Your task to perform on an android device: Clear the shopping cart on ebay.com. Add logitech g pro to the cart on ebay.com Image 0: 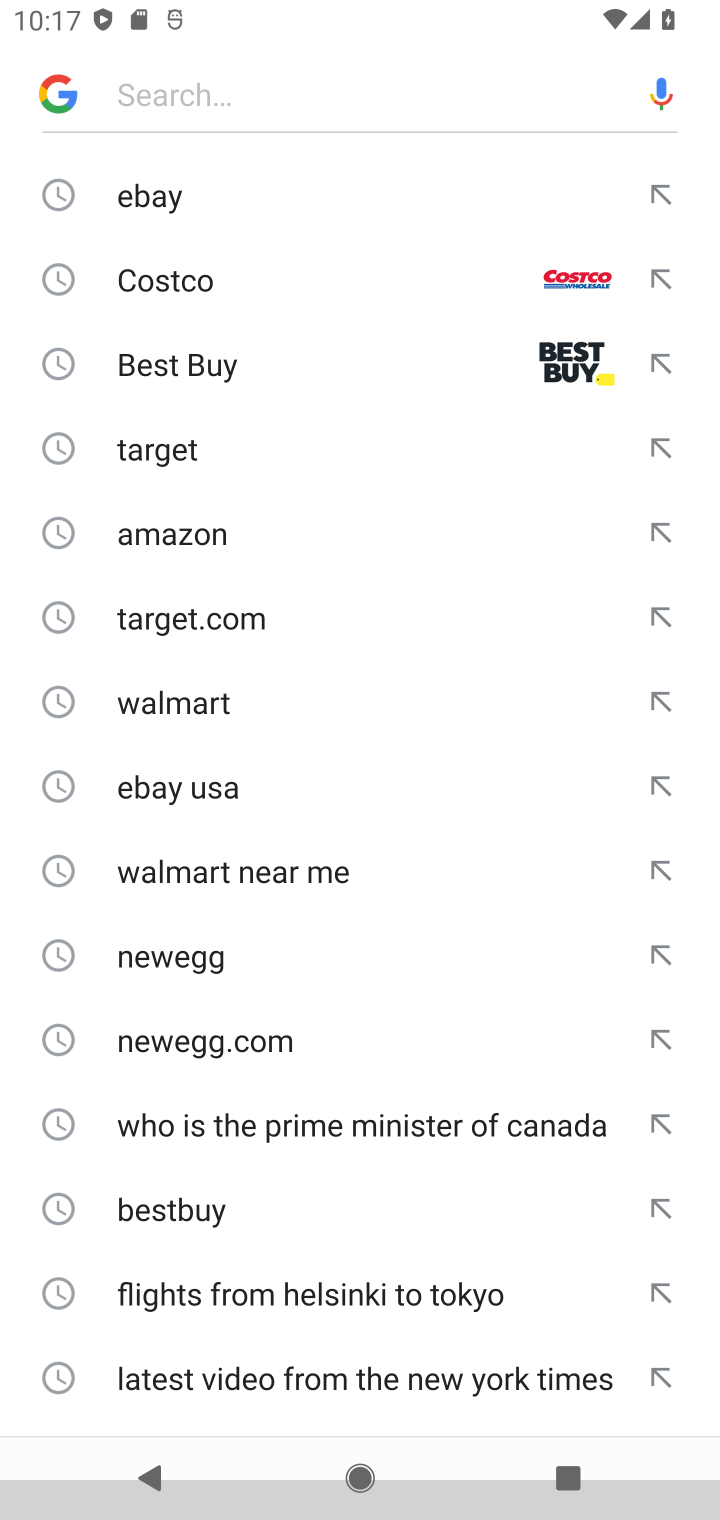
Step 0: press home button
Your task to perform on an android device: Clear the shopping cart on ebay.com. Add logitech g pro to the cart on ebay.com Image 1: 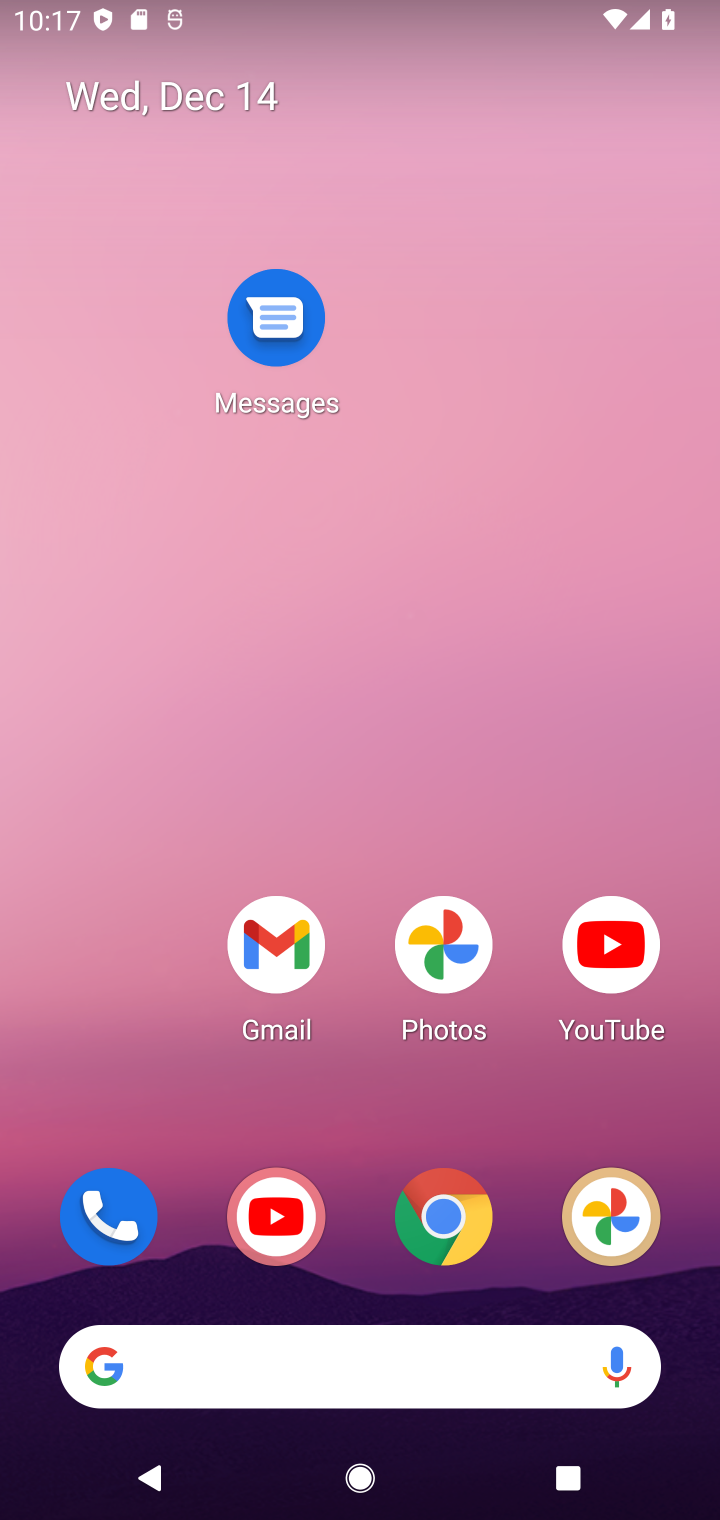
Step 1: drag from (270, 1197) to (268, 420)
Your task to perform on an android device: Clear the shopping cart on ebay.com. Add logitech g pro to the cart on ebay.com Image 2: 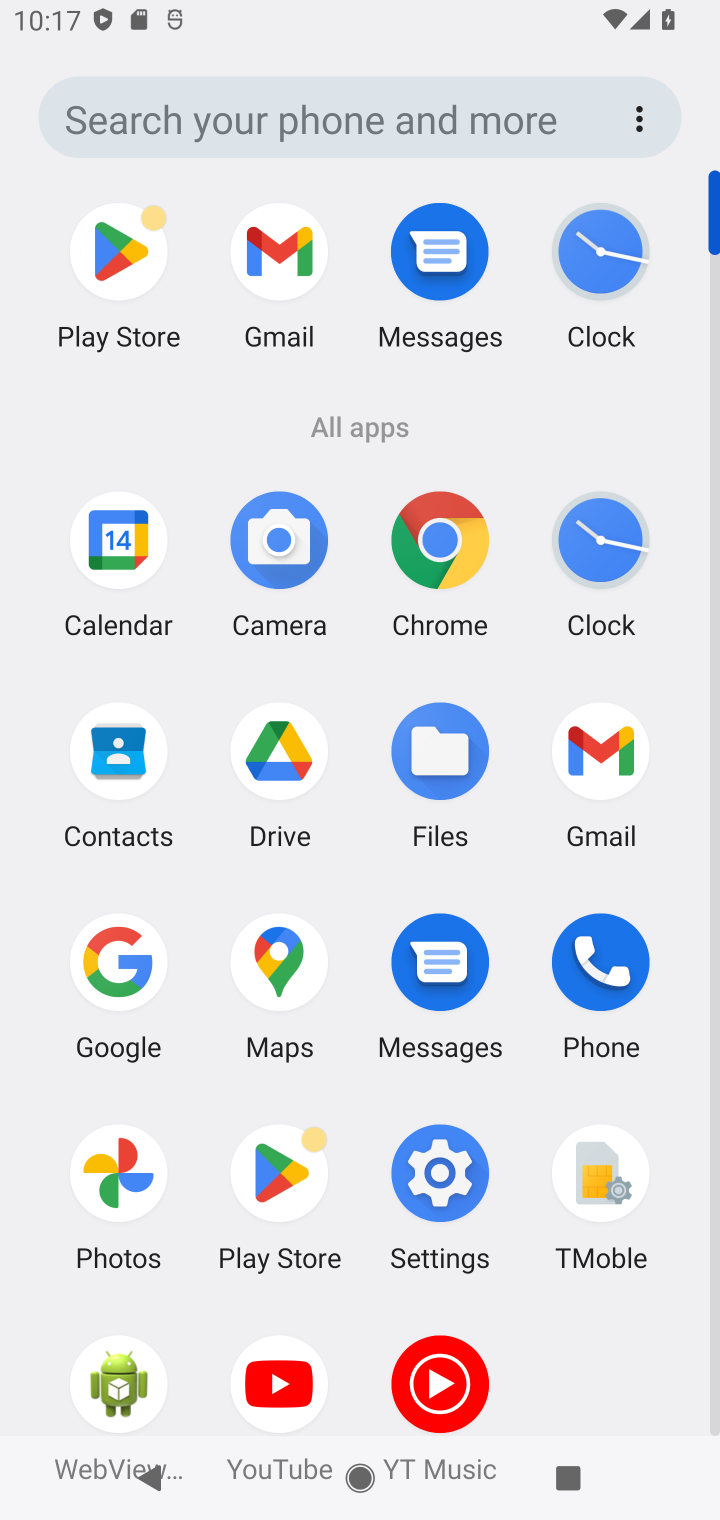
Step 2: click (128, 981)
Your task to perform on an android device: Clear the shopping cart on ebay.com. Add logitech g pro to the cart on ebay.com Image 3: 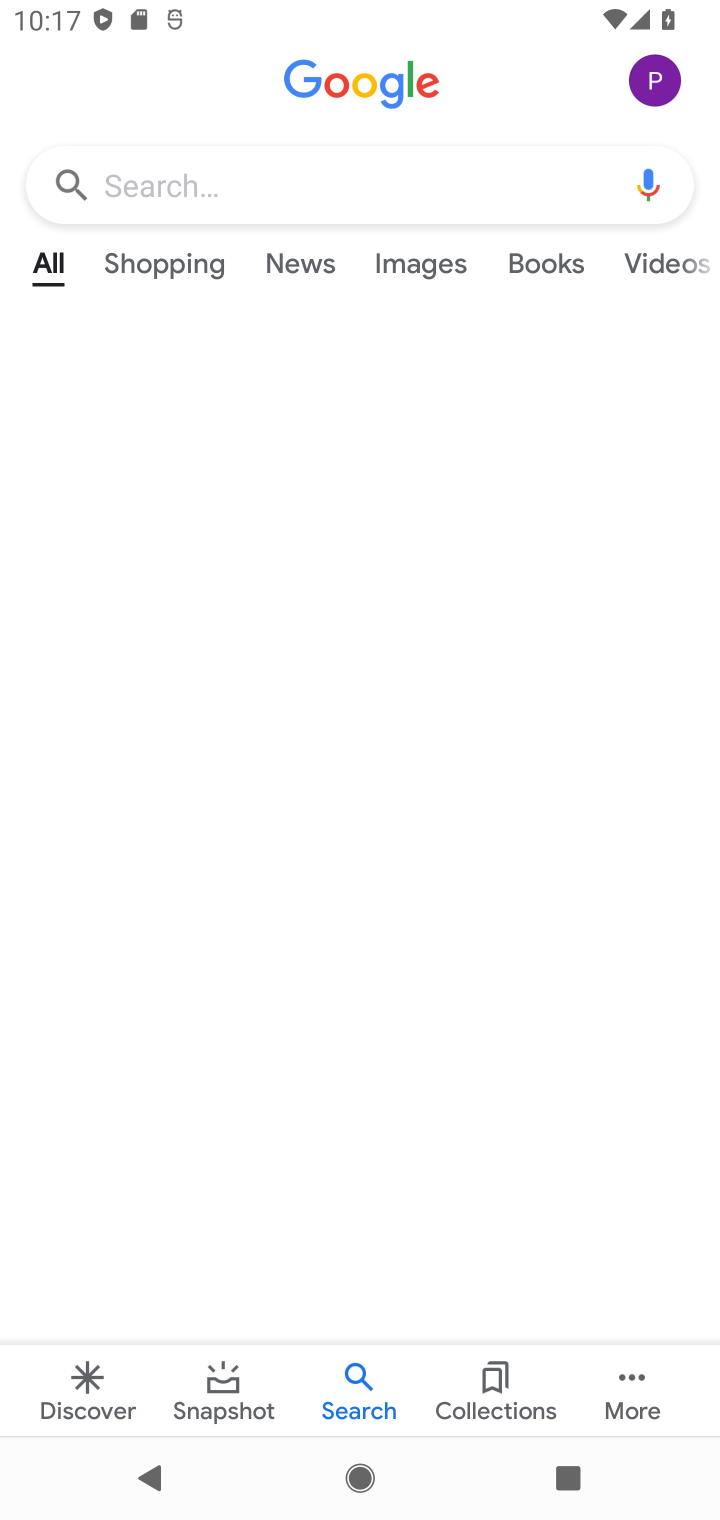
Step 3: click (123, 174)
Your task to perform on an android device: Clear the shopping cart on ebay.com. Add logitech g pro to the cart on ebay.com Image 4: 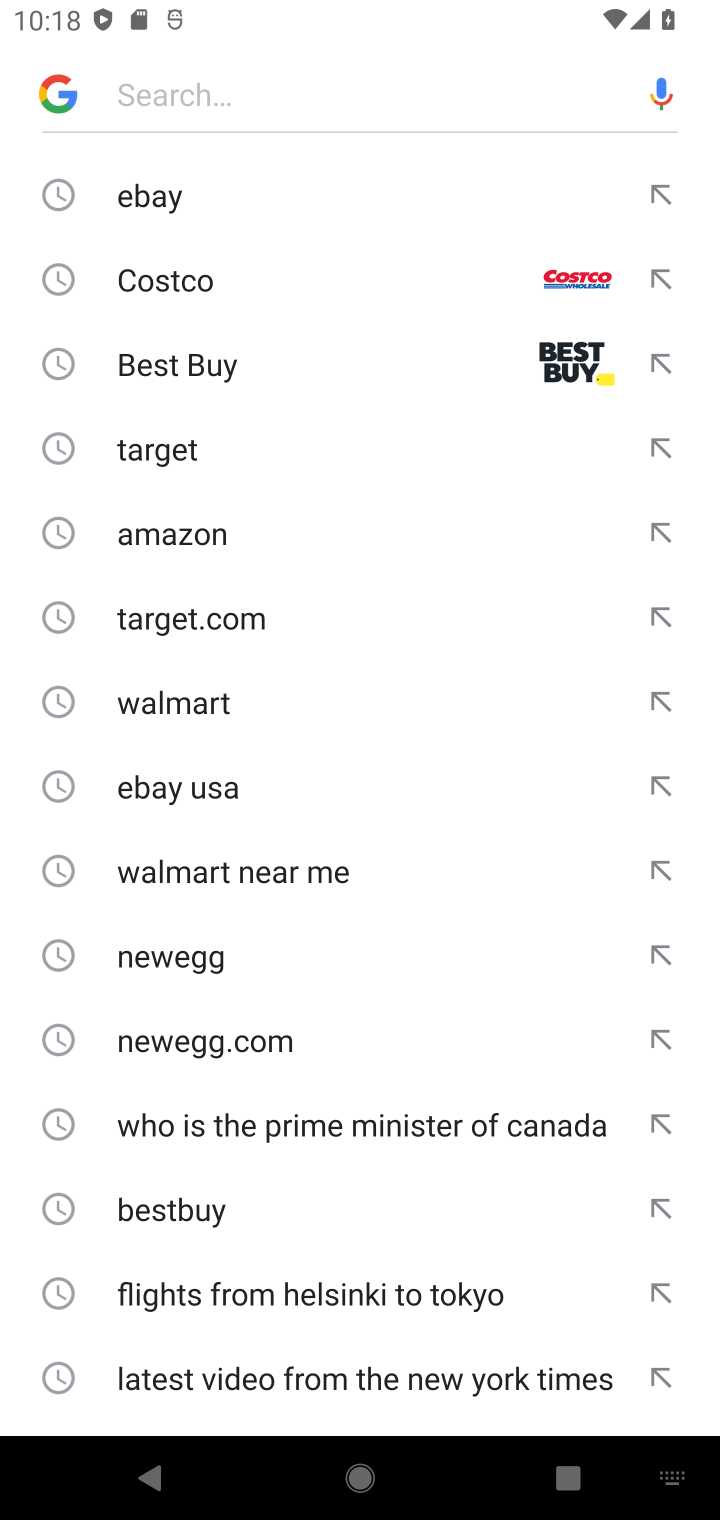
Step 4: click (152, 207)
Your task to perform on an android device: Clear the shopping cart on ebay.com. Add logitech g pro to the cart on ebay.com Image 5: 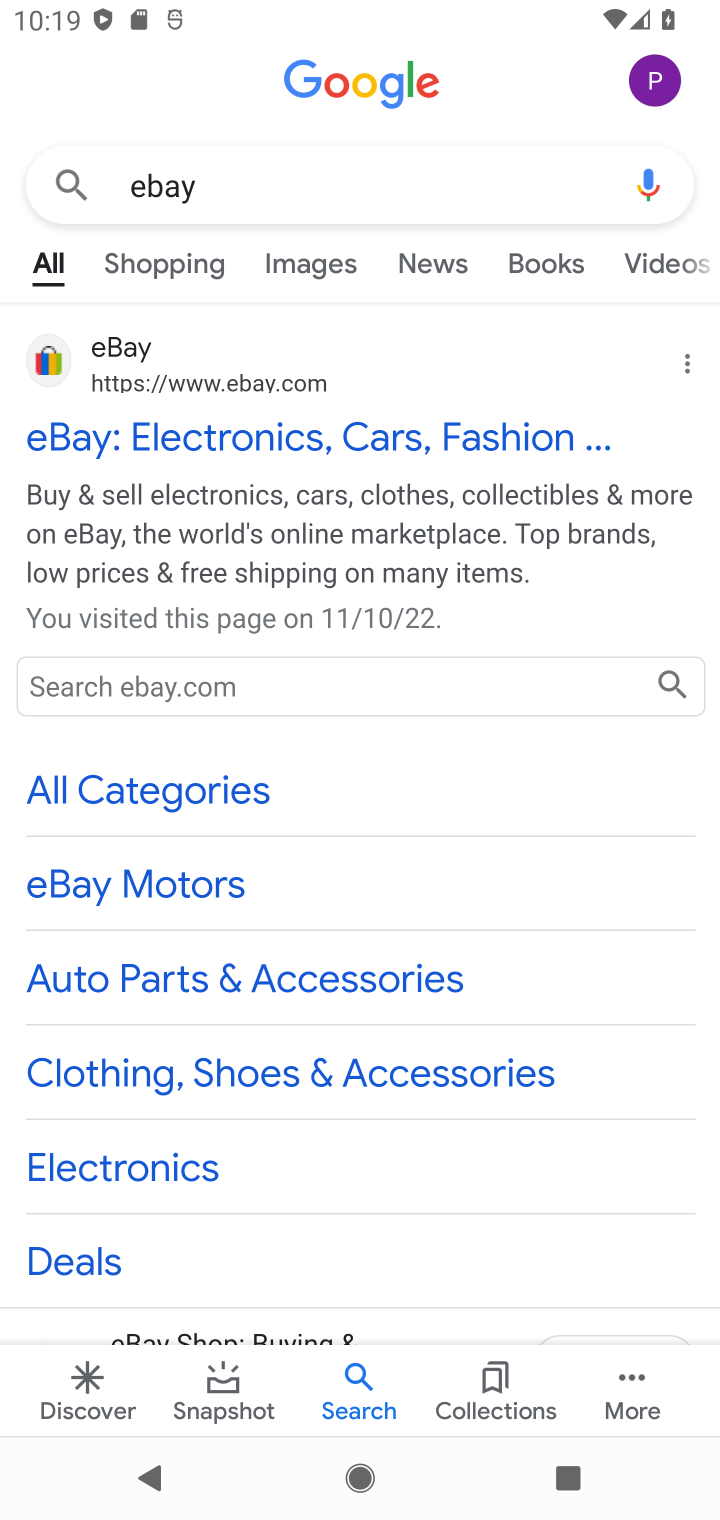
Step 5: click (183, 440)
Your task to perform on an android device: Clear the shopping cart on ebay.com. Add logitech g pro to the cart on ebay.com Image 6: 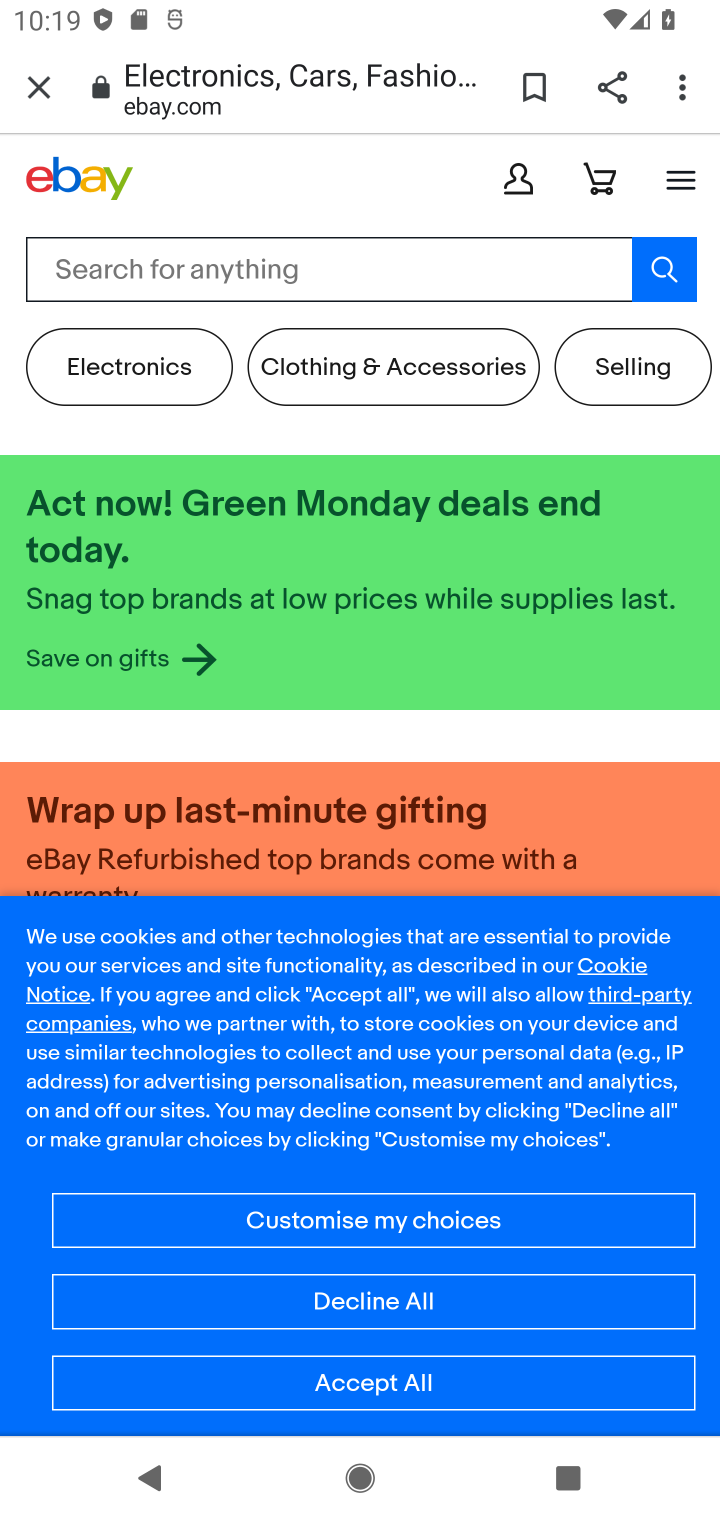
Step 6: click (154, 274)
Your task to perform on an android device: Clear the shopping cart on ebay.com. Add logitech g pro to the cart on ebay.com Image 7: 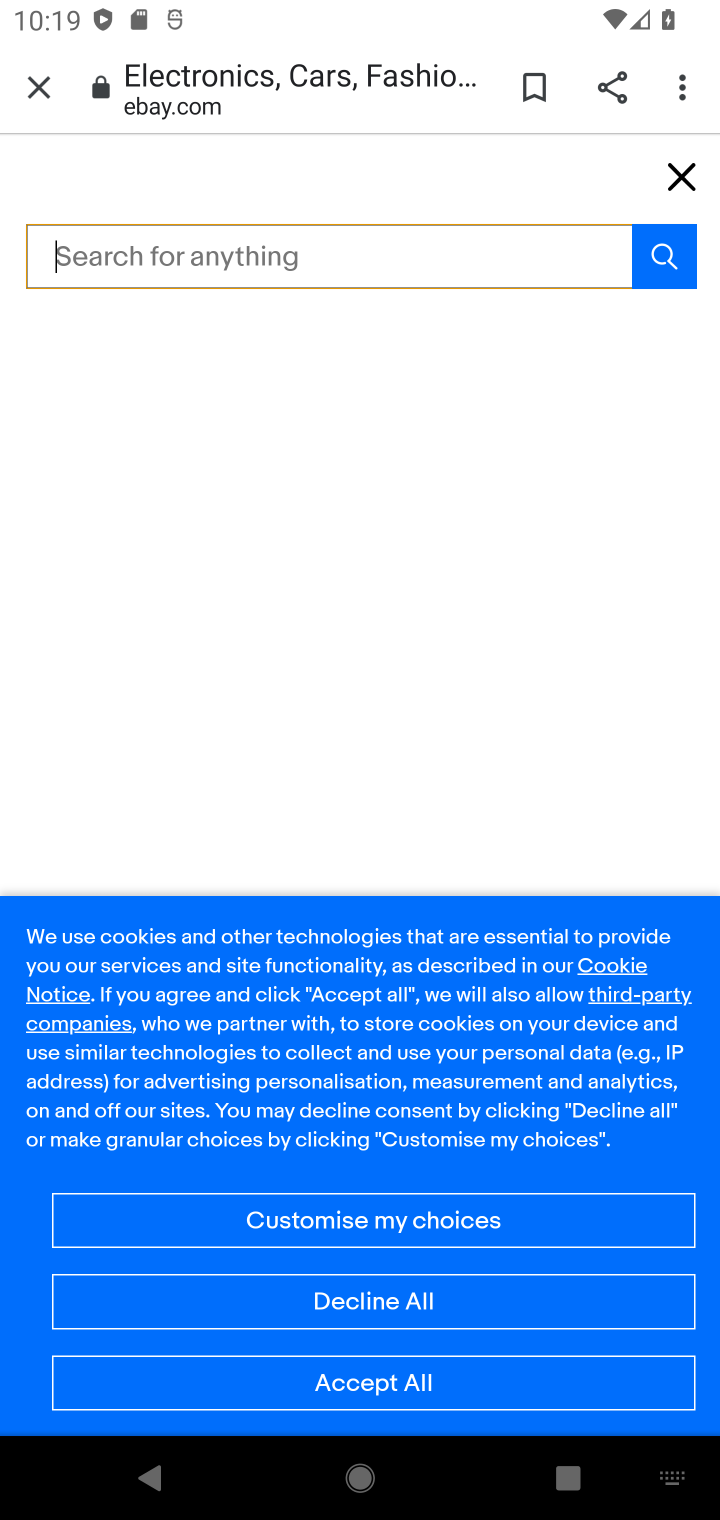
Step 7: type "logitech g"
Your task to perform on an android device: Clear the shopping cart on ebay.com. Add logitech g pro to the cart on ebay.com Image 8: 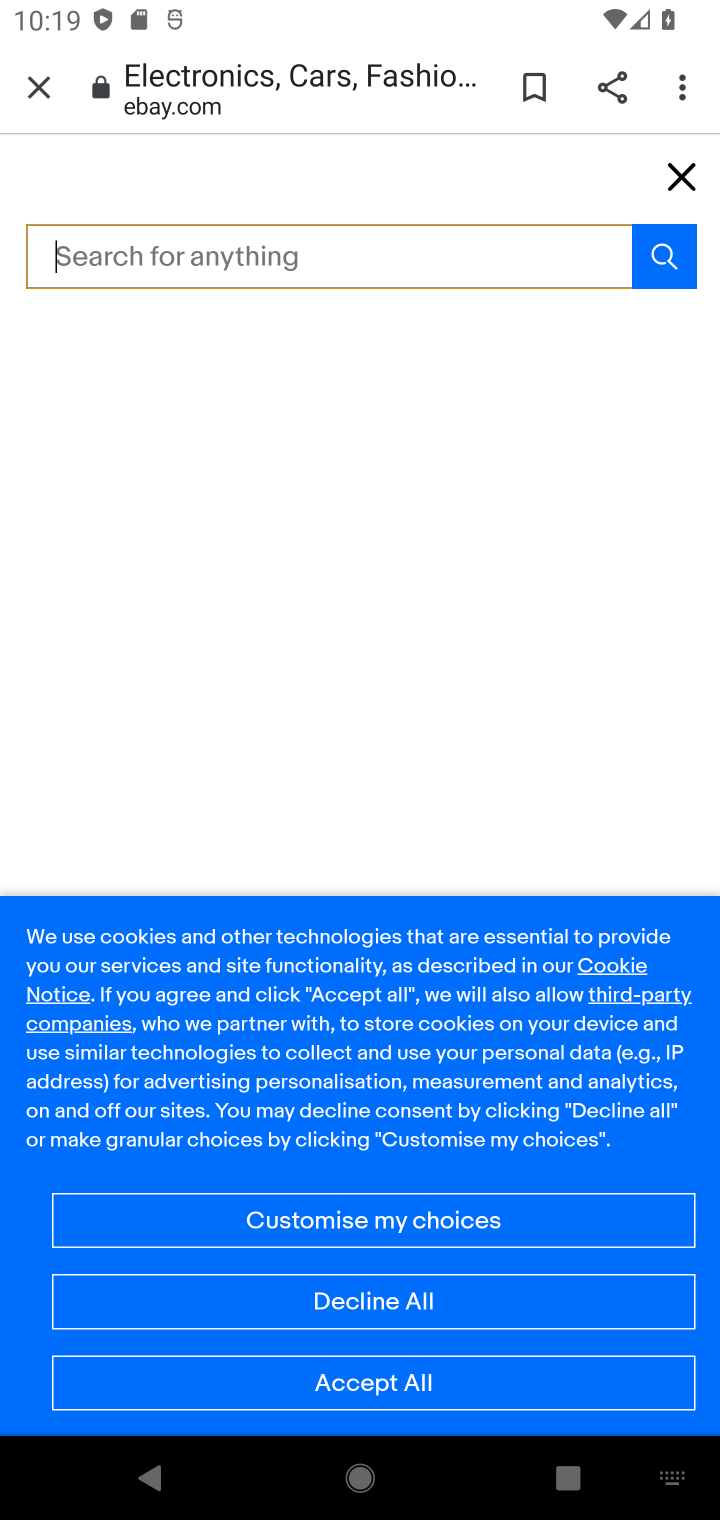
Step 8: click (665, 250)
Your task to perform on an android device: Clear the shopping cart on ebay.com. Add logitech g pro to the cart on ebay.com Image 9: 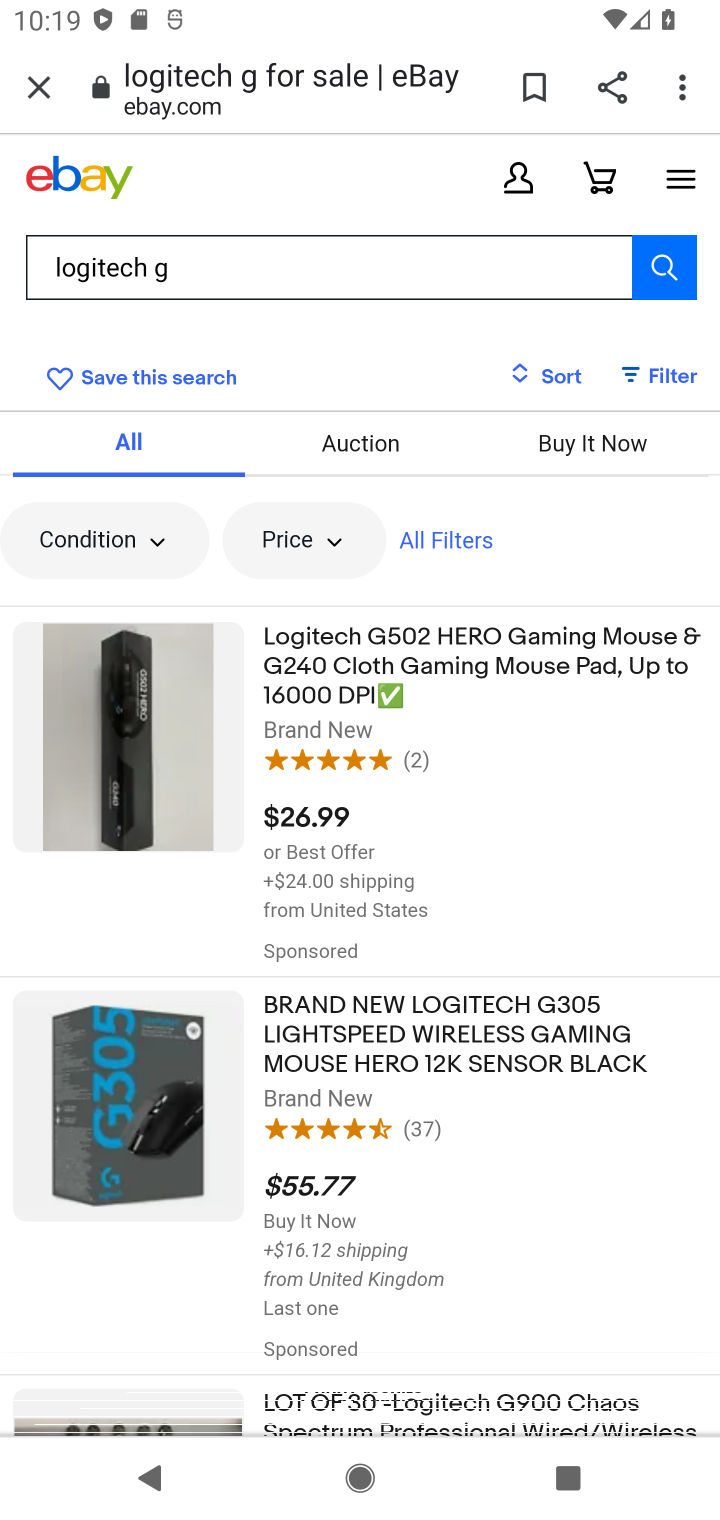
Step 9: click (335, 688)
Your task to perform on an android device: Clear the shopping cart on ebay.com. Add logitech g pro to the cart on ebay.com Image 10: 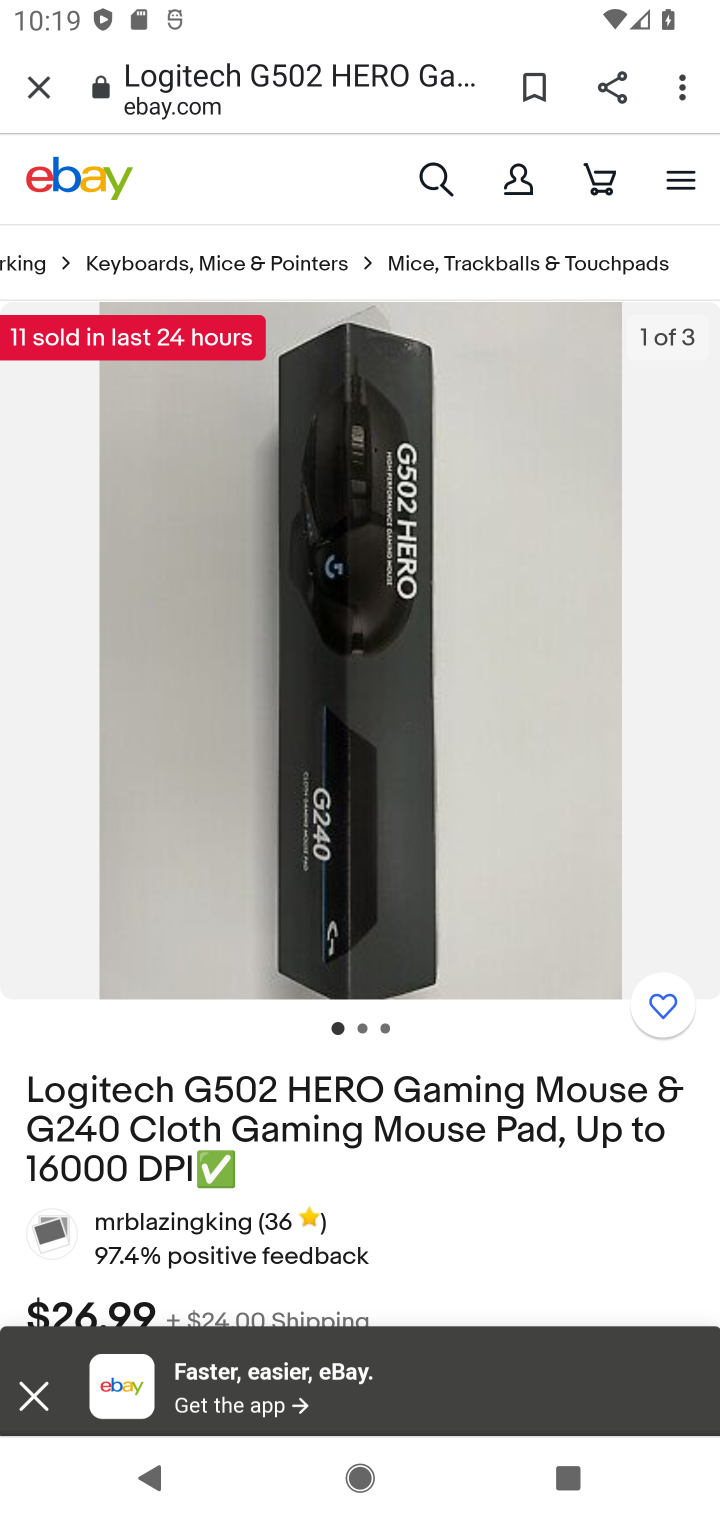
Step 10: drag from (451, 1051) to (425, 613)
Your task to perform on an android device: Clear the shopping cart on ebay.com. Add logitech g pro to the cart on ebay.com Image 11: 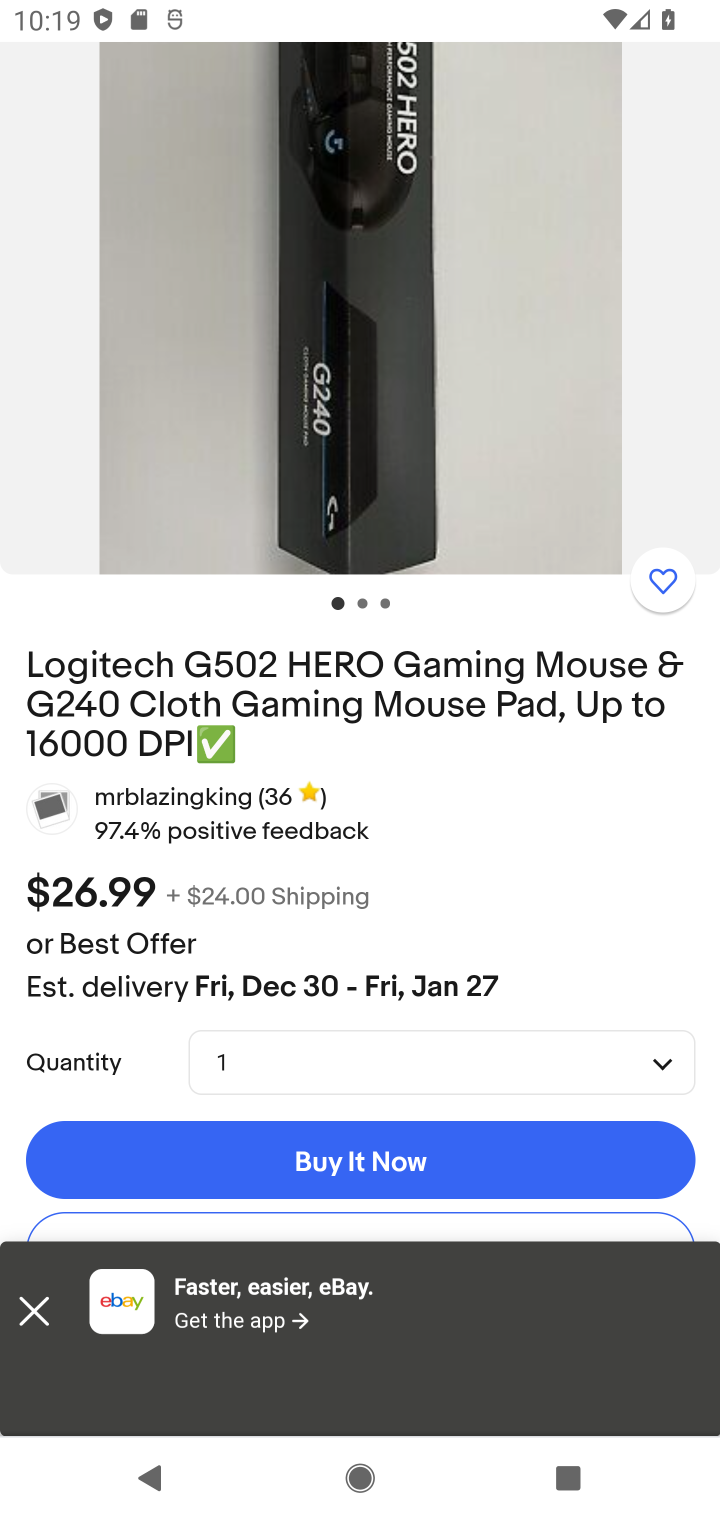
Step 11: drag from (485, 1045) to (439, 424)
Your task to perform on an android device: Clear the shopping cart on ebay.com. Add logitech g pro to the cart on ebay.com Image 12: 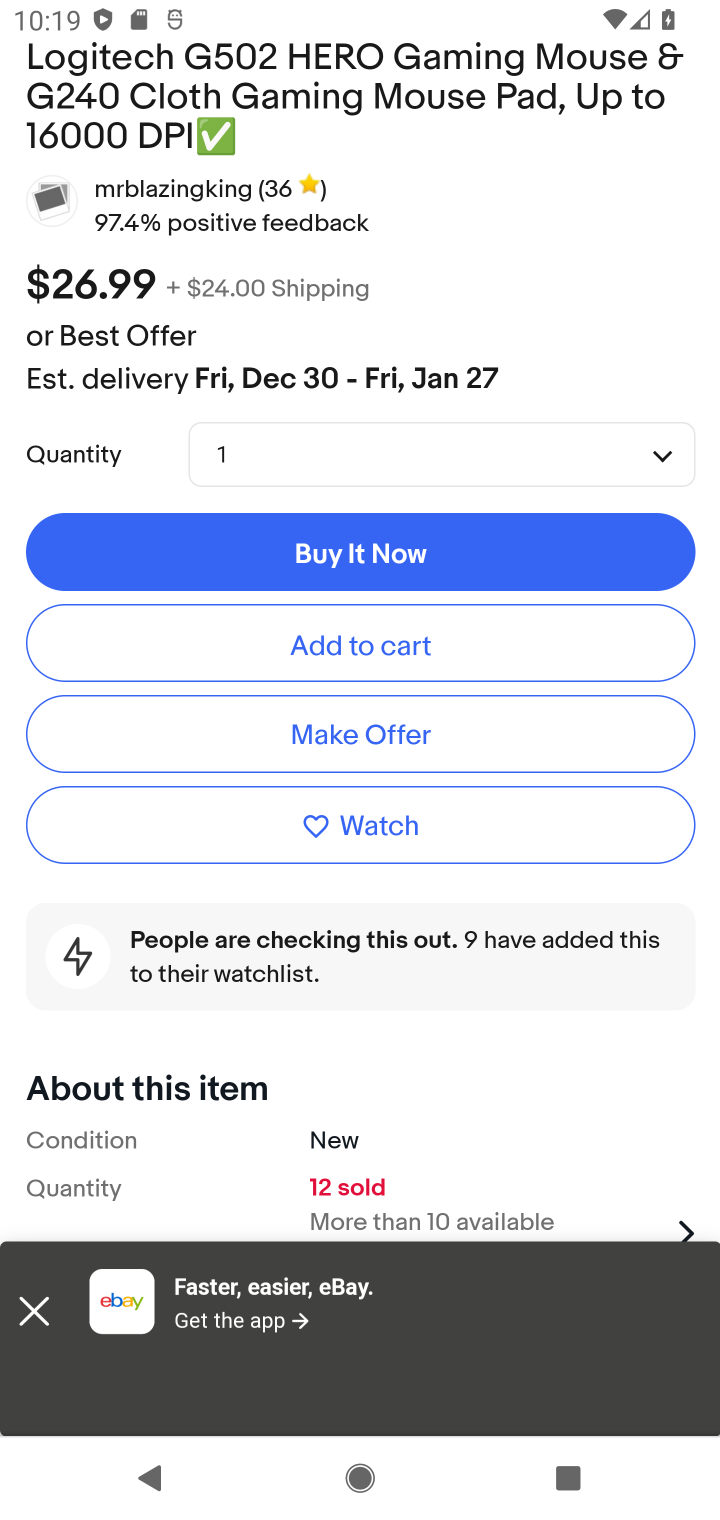
Step 12: click (363, 649)
Your task to perform on an android device: Clear the shopping cart on ebay.com. Add logitech g pro to the cart on ebay.com Image 13: 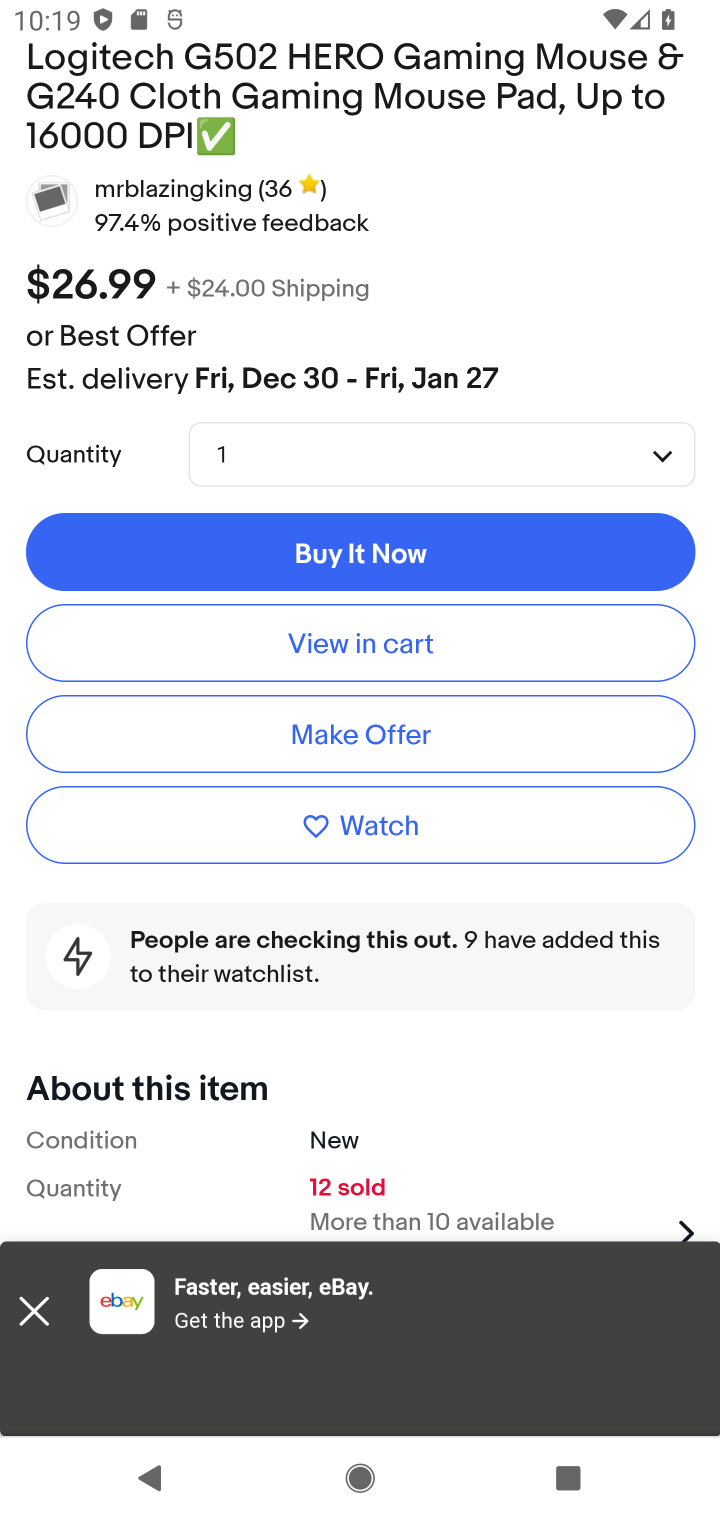
Step 13: click (336, 642)
Your task to perform on an android device: Clear the shopping cart on ebay.com. Add logitech g pro to the cart on ebay.com Image 14: 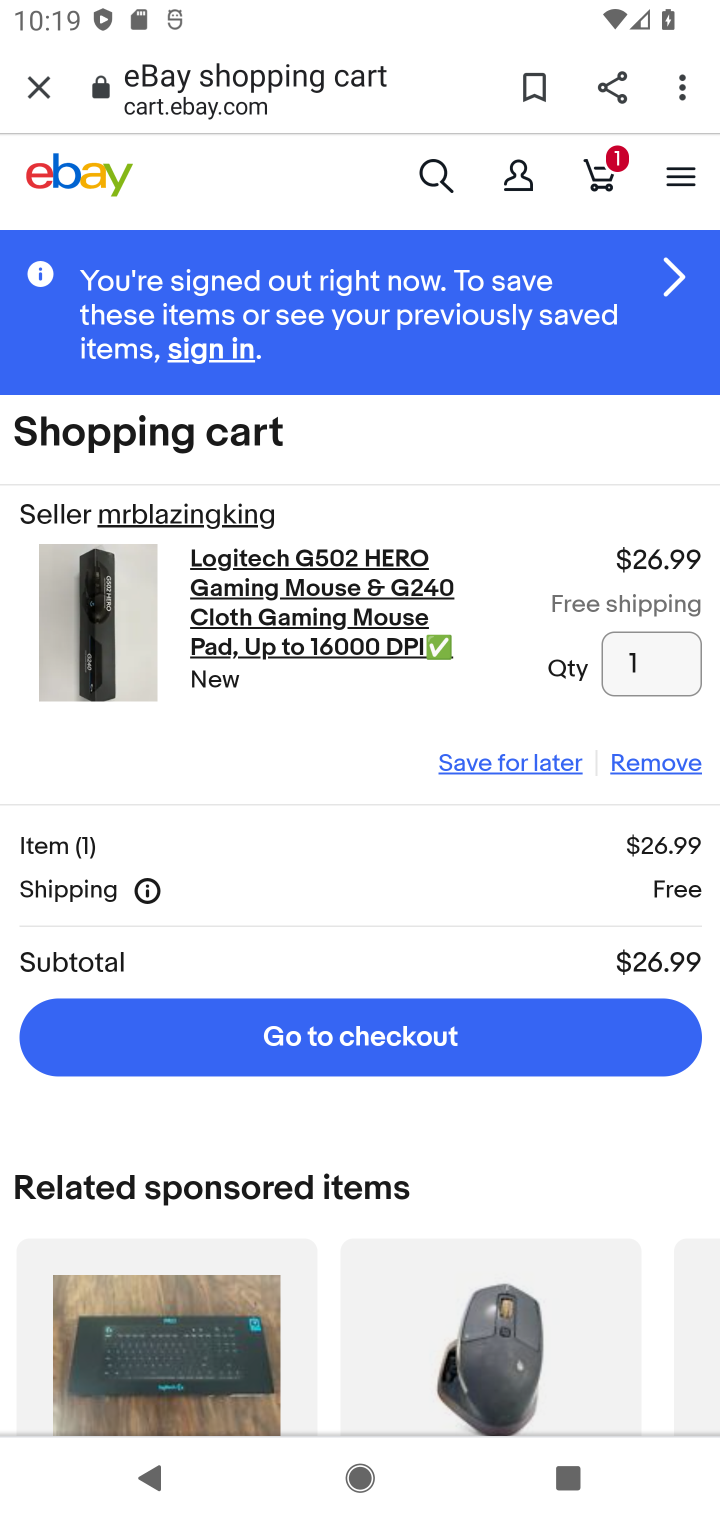
Step 14: click (372, 1029)
Your task to perform on an android device: Clear the shopping cart on ebay.com. Add logitech g pro to the cart on ebay.com Image 15: 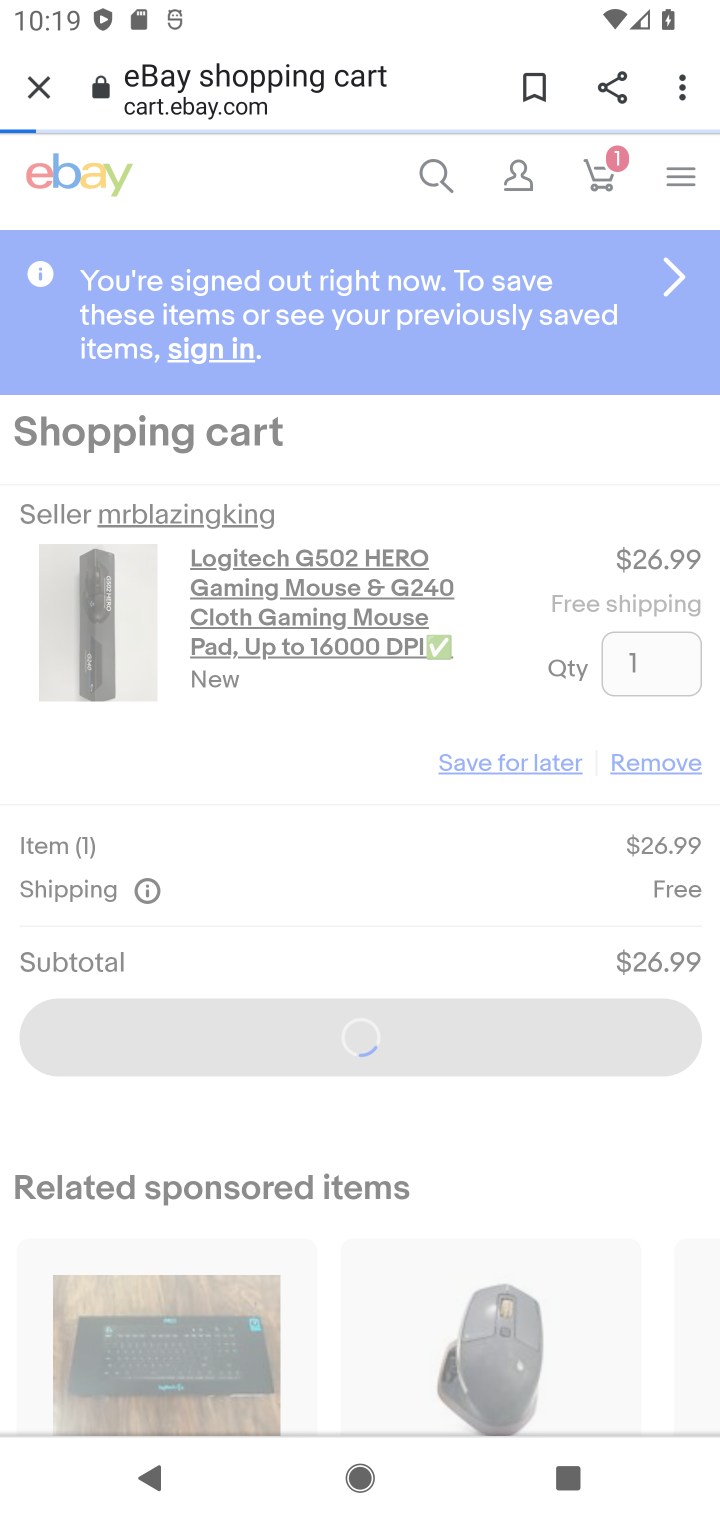
Step 15: task complete